Your task to perform on an android device: Go to Maps Image 0: 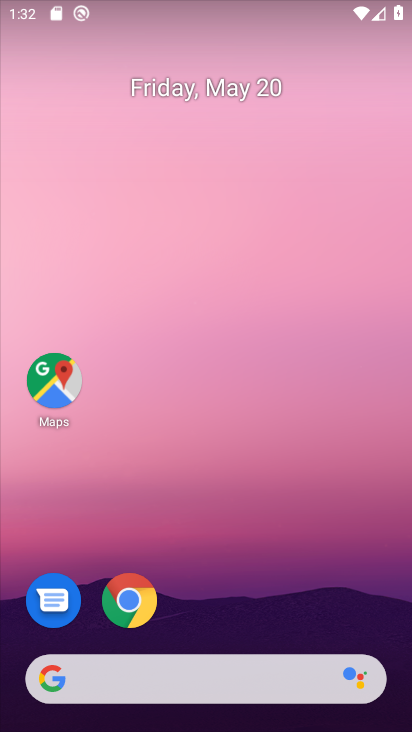
Step 0: click (75, 394)
Your task to perform on an android device: Go to Maps Image 1: 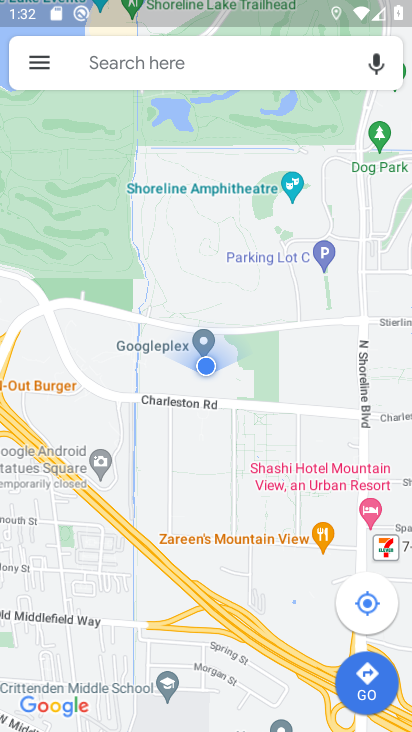
Step 1: task complete